Your task to perform on an android device: Open eBay Image 0: 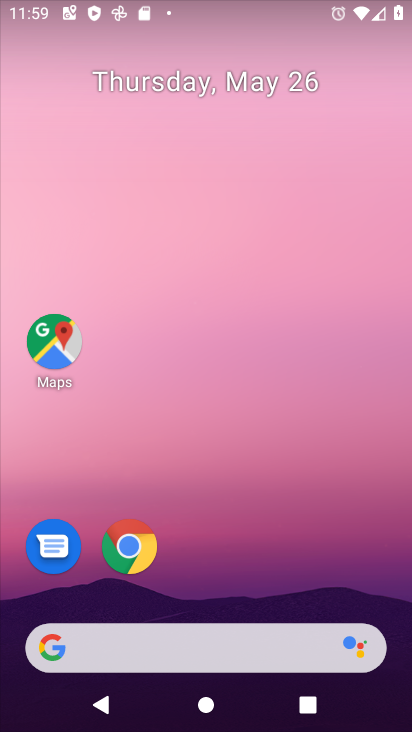
Step 0: drag from (210, 569) to (219, 126)
Your task to perform on an android device: Open eBay Image 1: 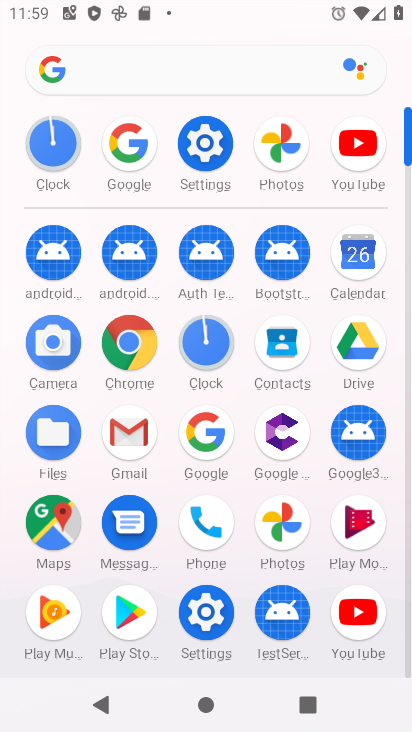
Step 1: click (132, 146)
Your task to perform on an android device: Open eBay Image 2: 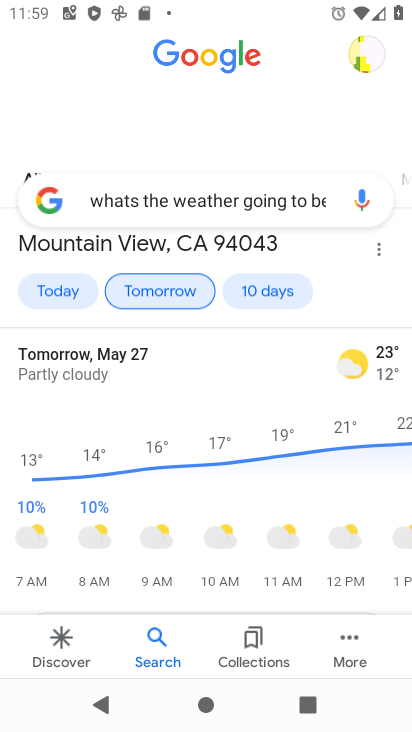
Step 2: click (251, 209)
Your task to perform on an android device: Open eBay Image 3: 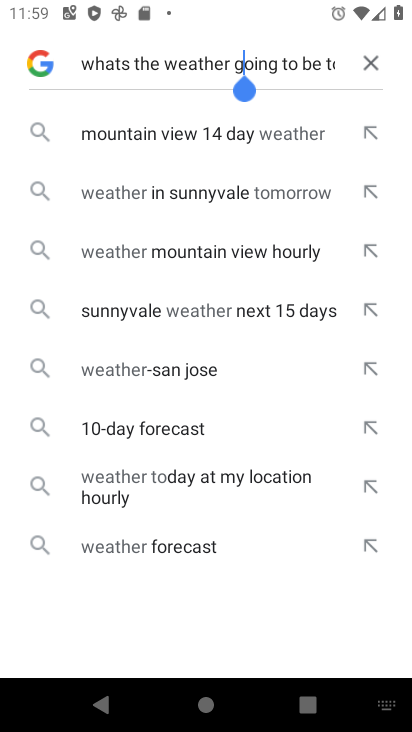
Step 3: click (367, 66)
Your task to perform on an android device: Open eBay Image 4: 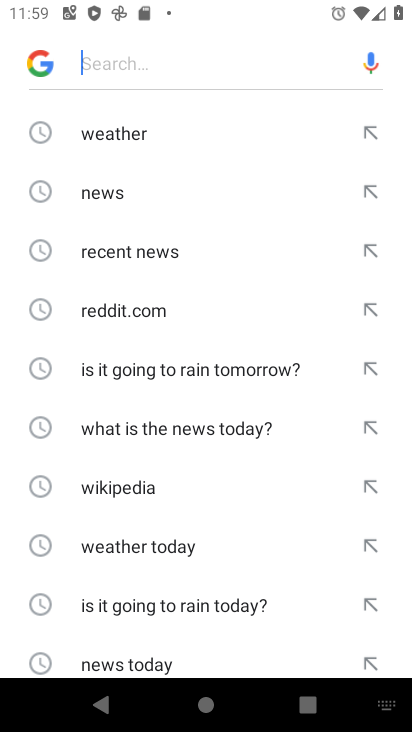
Step 4: drag from (200, 547) to (226, 153)
Your task to perform on an android device: Open eBay Image 5: 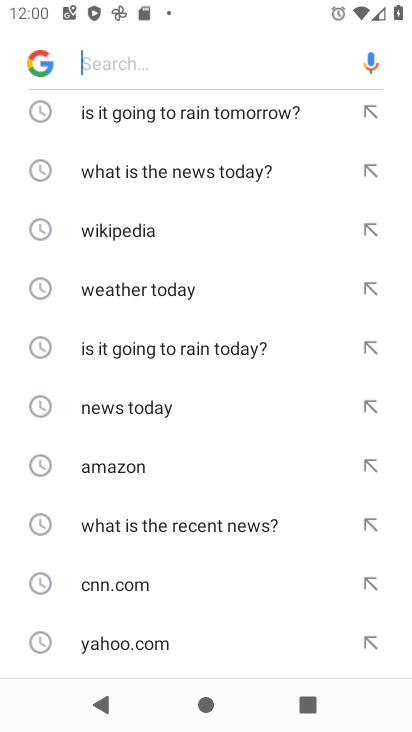
Step 5: drag from (209, 580) to (180, 186)
Your task to perform on an android device: Open eBay Image 6: 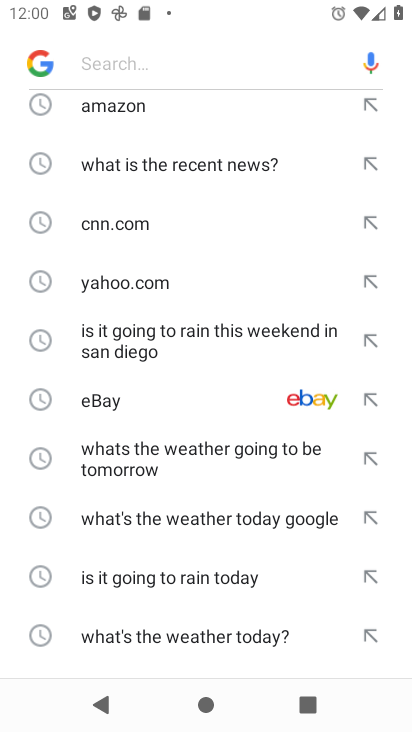
Step 6: click (122, 410)
Your task to perform on an android device: Open eBay Image 7: 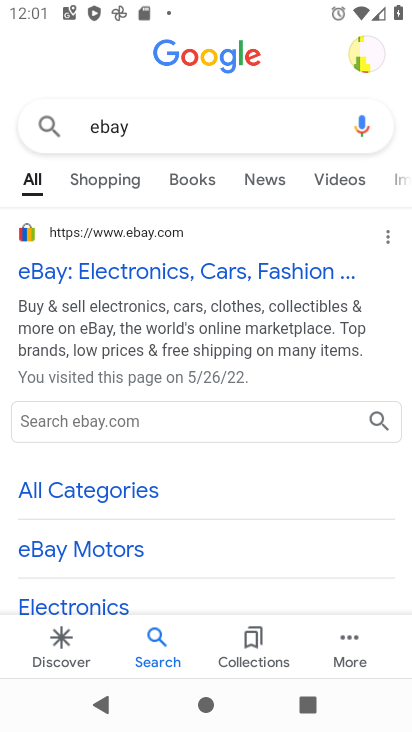
Step 7: task complete